Your task to perform on an android device: Open maps Image 0: 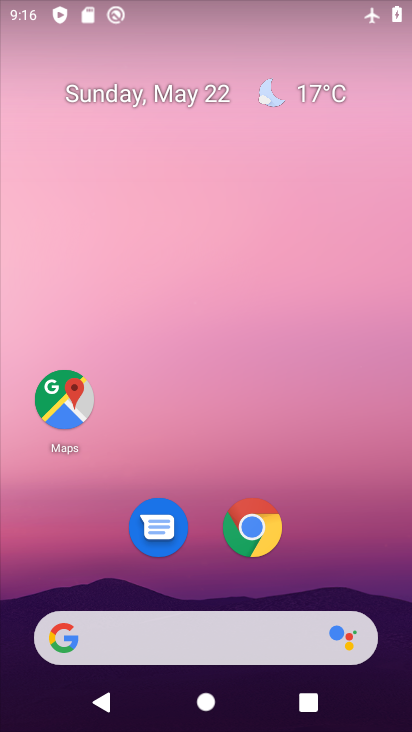
Step 0: click (58, 406)
Your task to perform on an android device: Open maps Image 1: 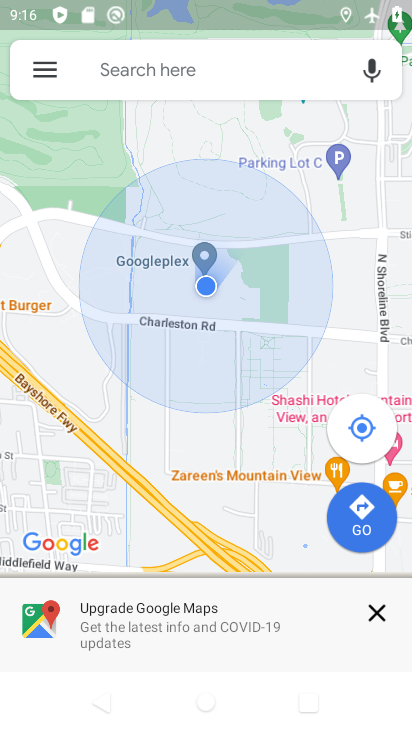
Step 1: task complete